Your task to perform on an android device: Open Reddit.com Image 0: 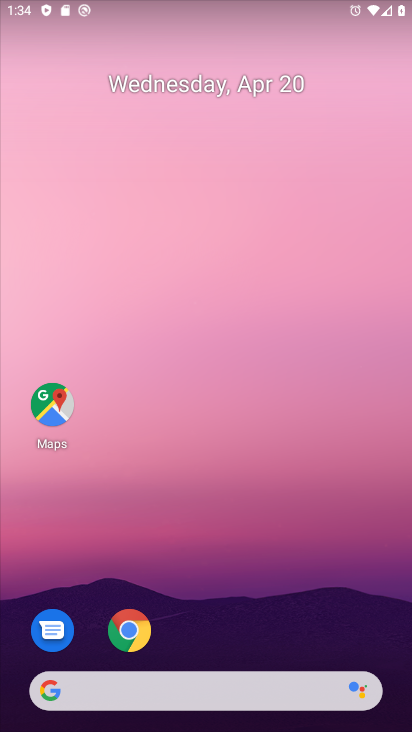
Step 0: click (120, 638)
Your task to perform on an android device: Open Reddit.com Image 1: 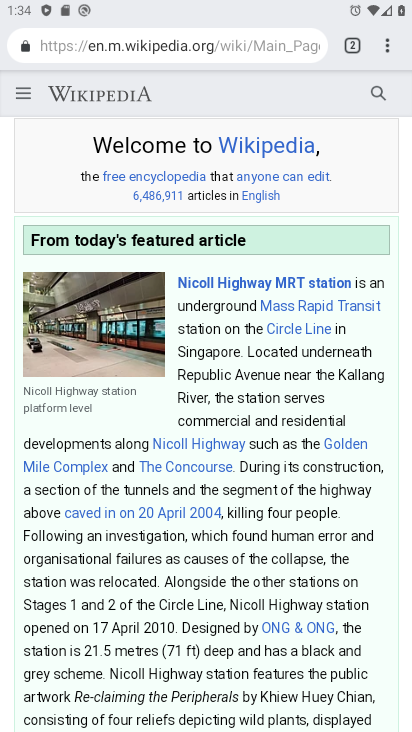
Step 1: click (353, 43)
Your task to perform on an android device: Open Reddit.com Image 2: 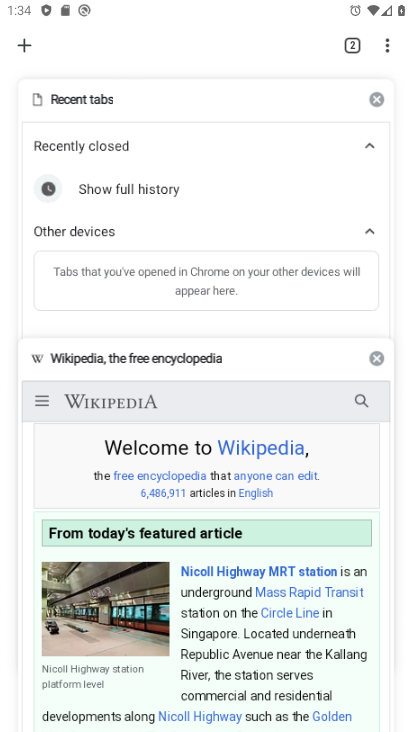
Step 2: click (26, 42)
Your task to perform on an android device: Open Reddit.com Image 3: 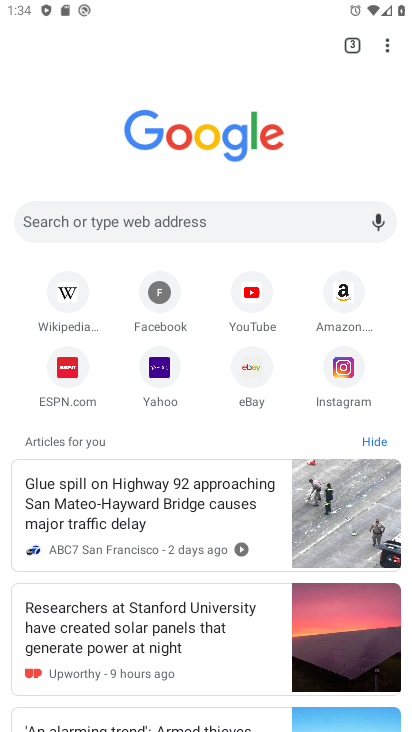
Step 3: click (179, 222)
Your task to perform on an android device: Open Reddit.com Image 4: 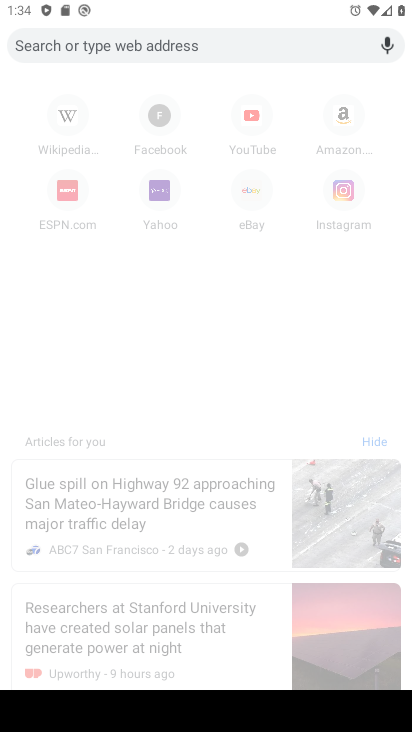
Step 4: type "reddit.com"
Your task to perform on an android device: Open Reddit.com Image 5: 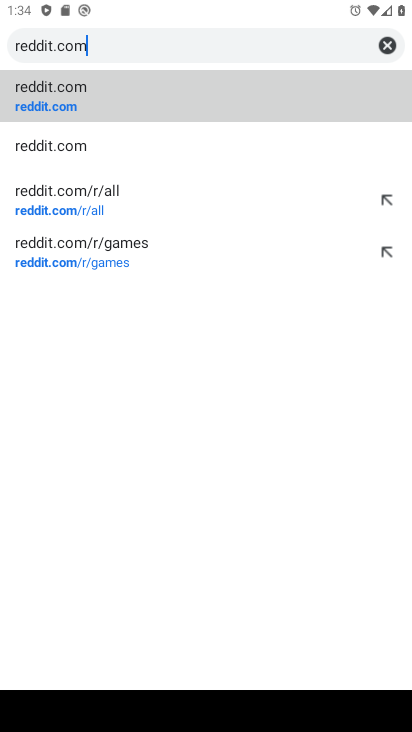
Step 5: click (49, 87)
Your task to perform on an android device: Open Reddit.com Image 6: 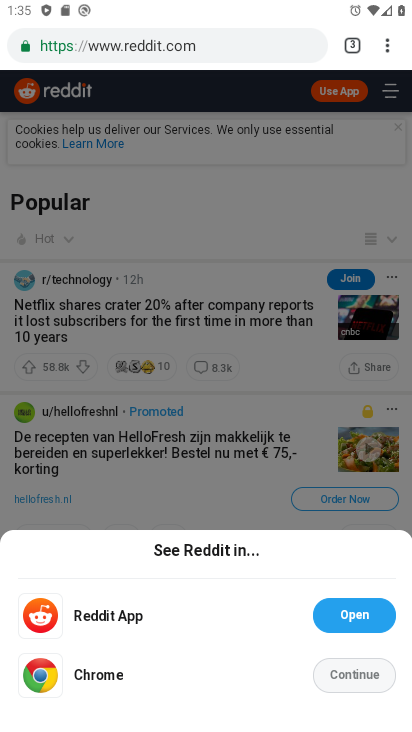
Step 6: task complete